Your task to perform on an android device: allow cookies in the chrome app Image 0: 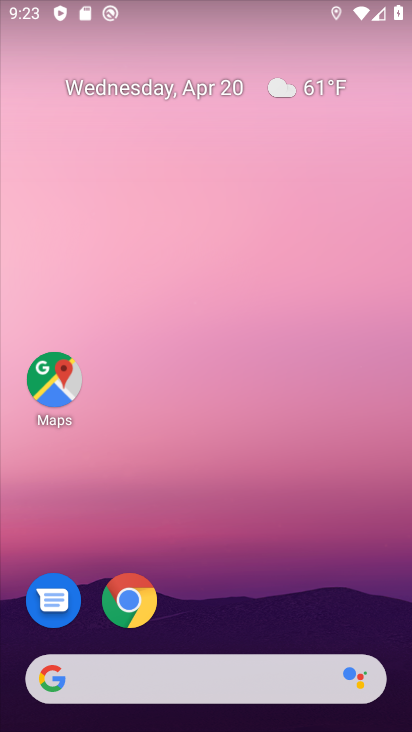
Step 0: click (134, 609)
Your task to perform on an android device: allow cookies in the chrome app Image 1: 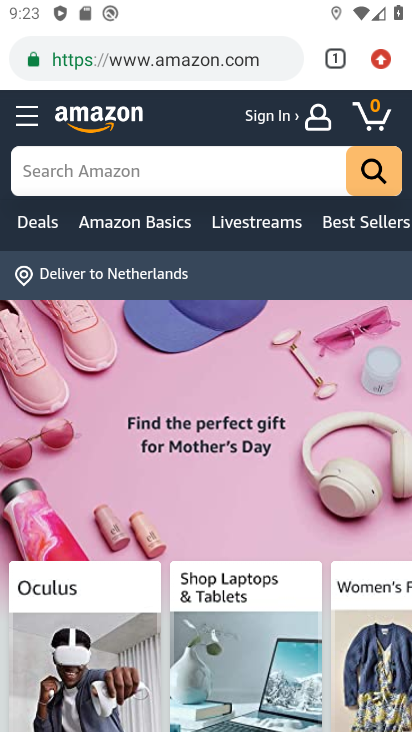
Step 1: click (380, 60)
Your task to perform on an android device: allow cookies in the chrome app Image 2: 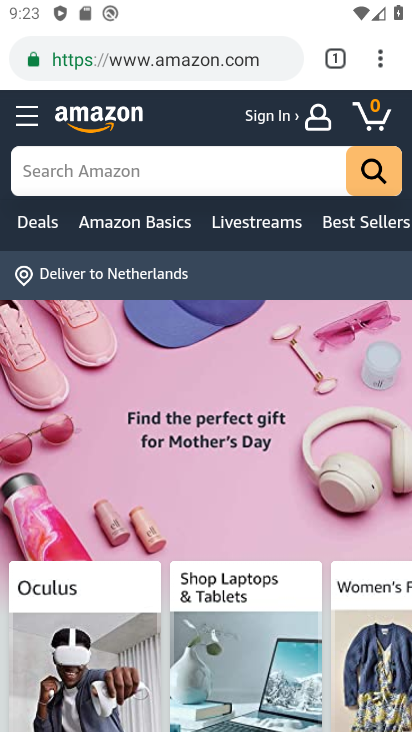
Step 2: click (381, 59)
Your task to perform on an android device: allow cookies in the chrome app Image 3: 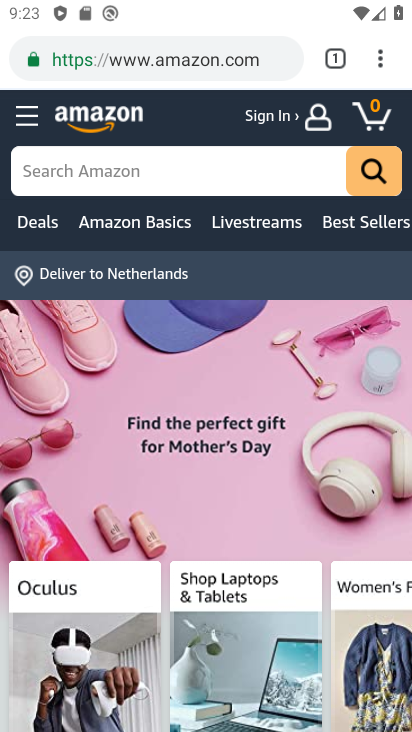
Step 3: click (381, 59)
Your task to perform on an android device: allow cookies in the chrome app Image 4: 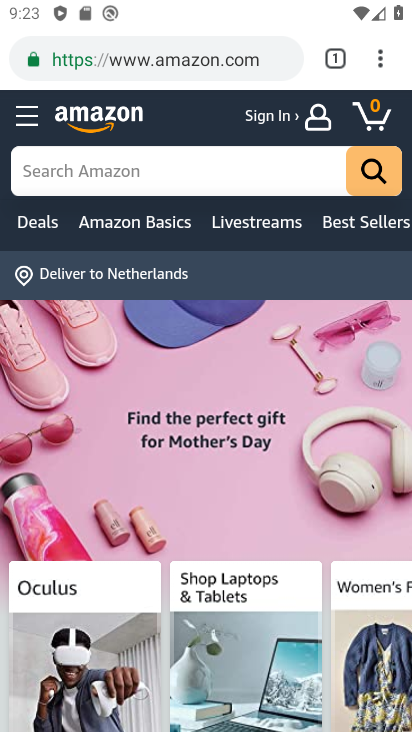
Step 4: click (379, 66)
Your task to perform on an android device: allow cookies in the chrome app Image 5: 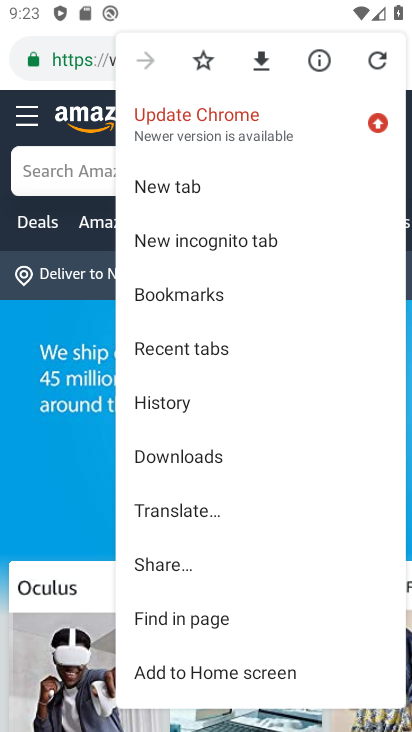
Step 5: drag from (249, 601) to (241, 208)
Your task to perform on an android device: allow cookies in the chrome app Image 6: 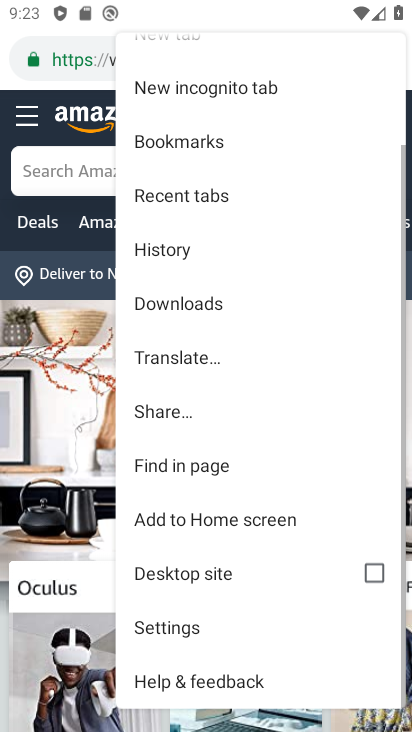
Step 6: click (174, 628)
Your task to perform on an android device: allow cookies in the chrome app Image 7: 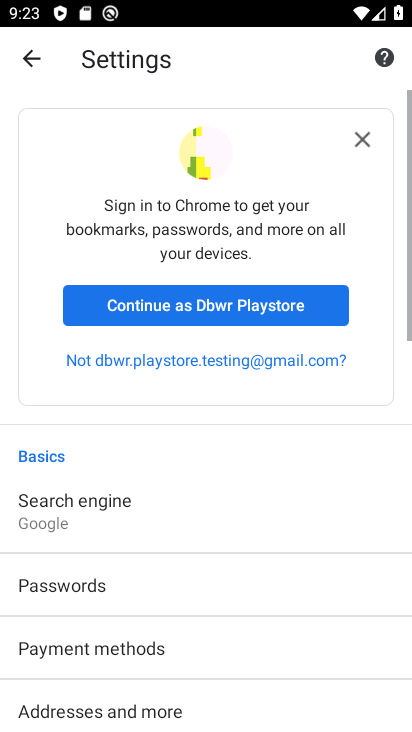
Step 7: drag from (193, 553) to (161, 109)
Your task to perform on an android device: allow cookies in the chrome app Image 8: 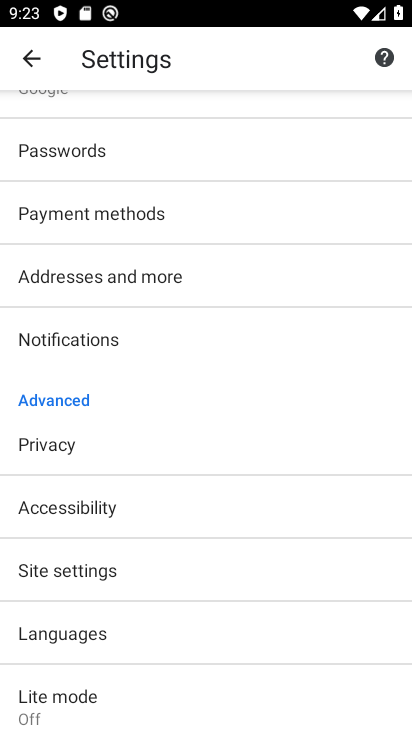
Step 8: click (104, 572)
Your task to perform on an android device: allow cookies in the chrome app Image 9: 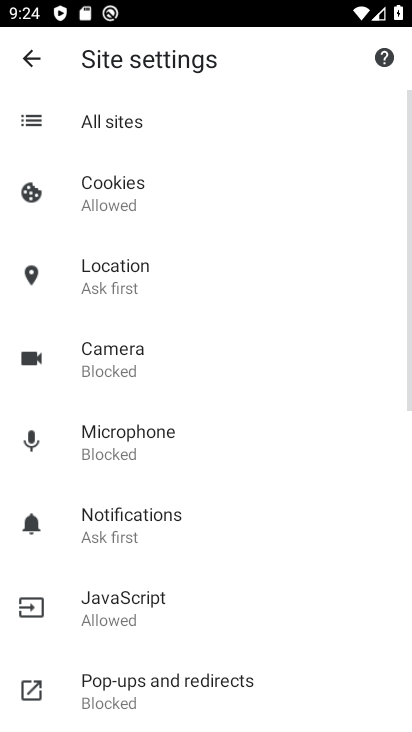
Step 9: click (140, 205)
Your task to perform on an android device: allow cookies in the chrome app Image 10: 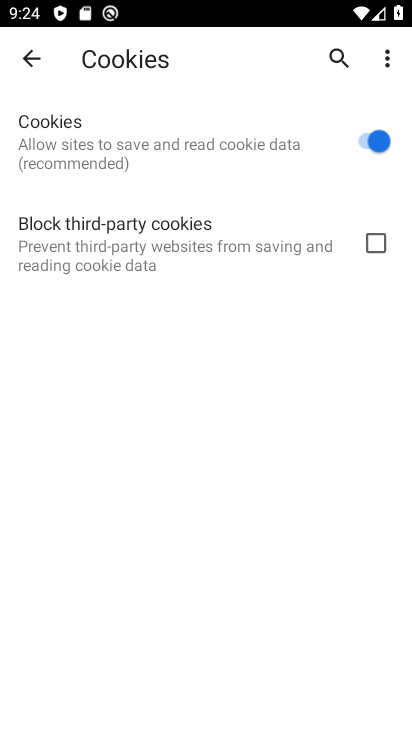
Step 10: task complete